Your task to perform on an android device: open a bookmark in the chrome app Image 0: 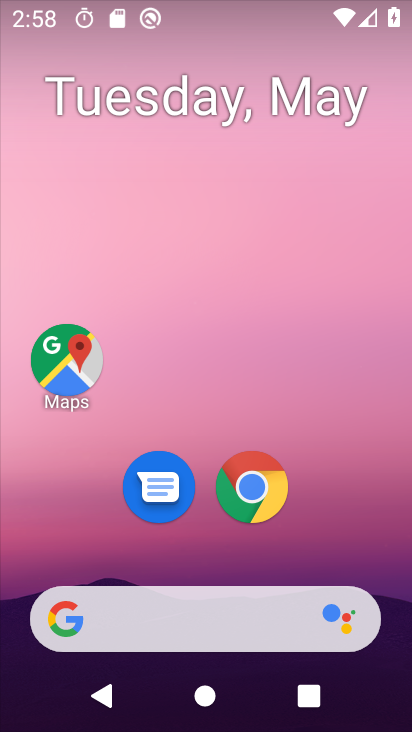
Step 0: click (258, 481)
Your task to perform on an android device: open a bookmark in the chrome app Image 1: 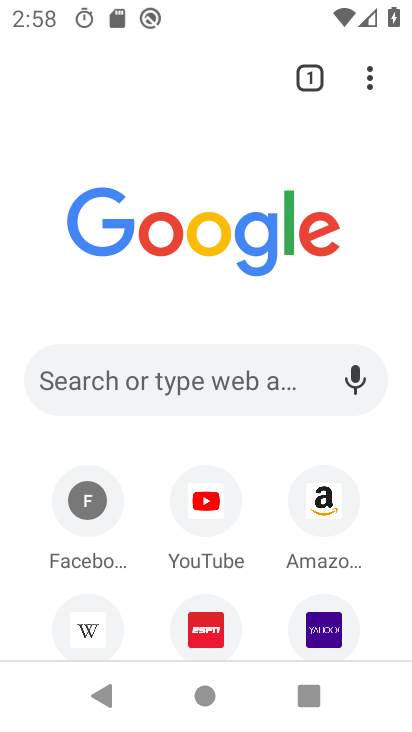
Step 1: click (370, 77)
Your task to perform on an android device: open a bookmark in the chrome app Image 2: 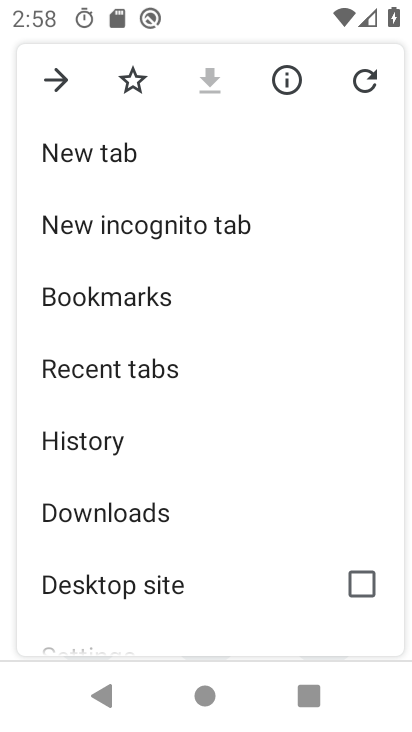
Step 2: drag from (299, 342) to (300, 288)
Your task to perform on an android device: open a bookmark in the chrome app Image 3: 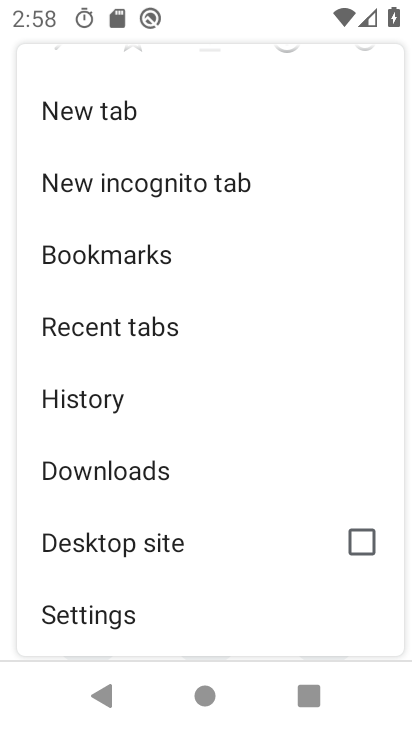
Step 3: click (60, 255)
Your task to perform on an android device: open a bookmark in the chrome app Image 4: 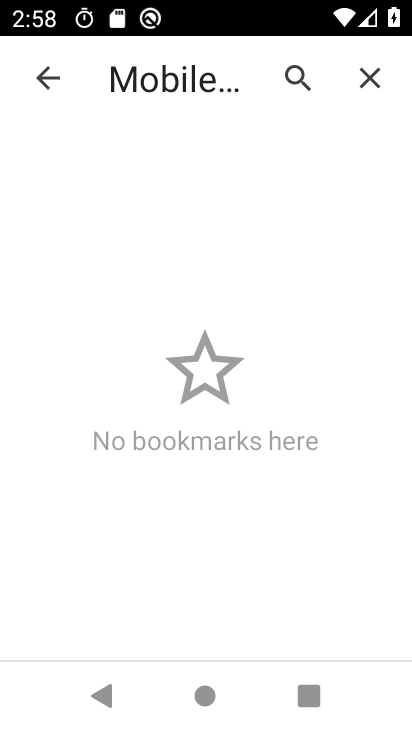
Step 4: task complete